Your task to perform on an android device: Clear the cart on walmart.com. Search for "usb-c to usb-b" on walmart.com, select the first entry, and add it to the cart. Image 0: 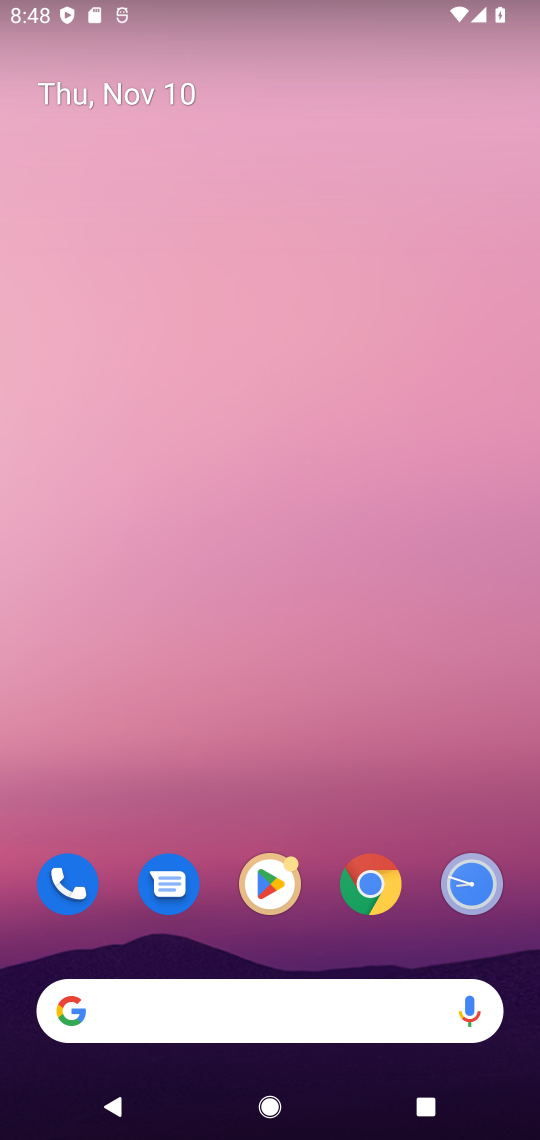
Step 0: click (201, 1002)
Your task to perform on an android device: Clear the cart on walmart.com. Search for "usb-c to usb-b" on walmart.com, select the first entry, and add it to the cart. Image 1: 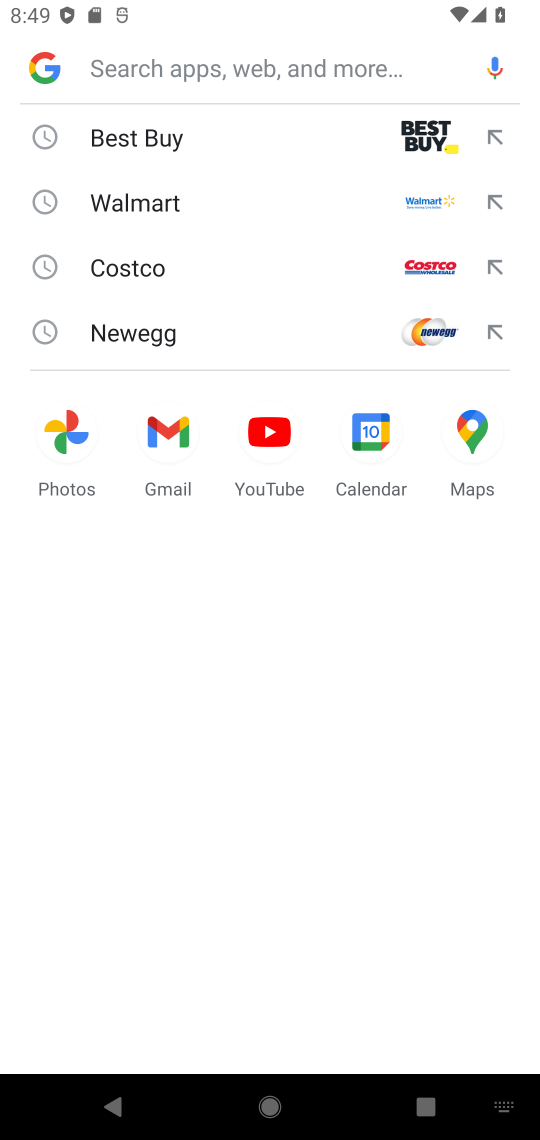
Step 1: click (136, 212)
Your task to perform on an android device: Clear the cart on walmart.com. Search for "usb-c to usb-b" on walmart.com, select the first entry, and add it to the cart. Image 2: 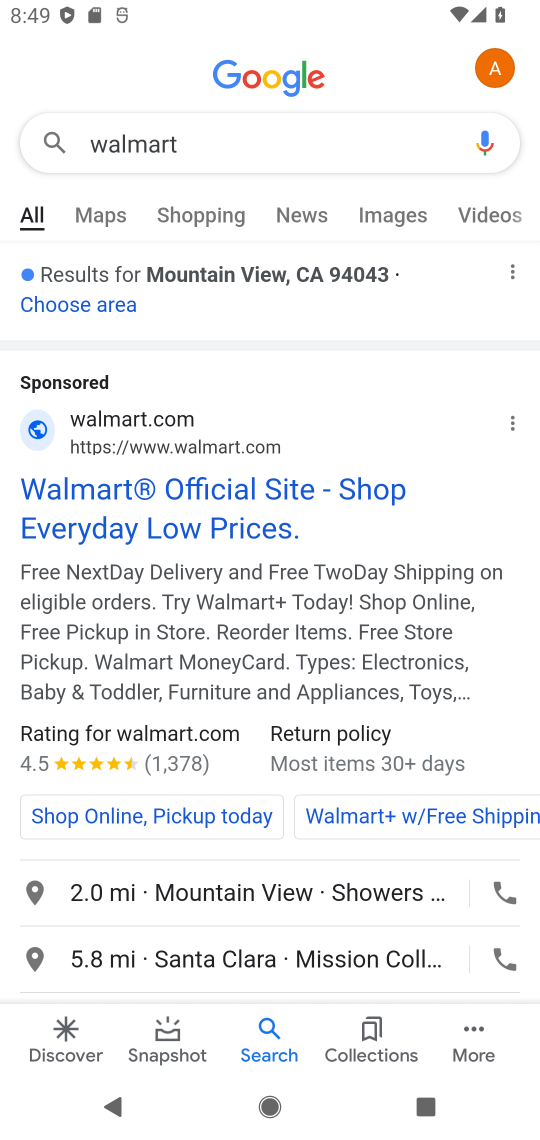
Step 2: click (96, 427)
Your task to perform on an android device: Clear the cart on walmart.com. Search for "usb-c to usb-b" on walmart.com, select the first entry, and add it to the cart. Image 3: 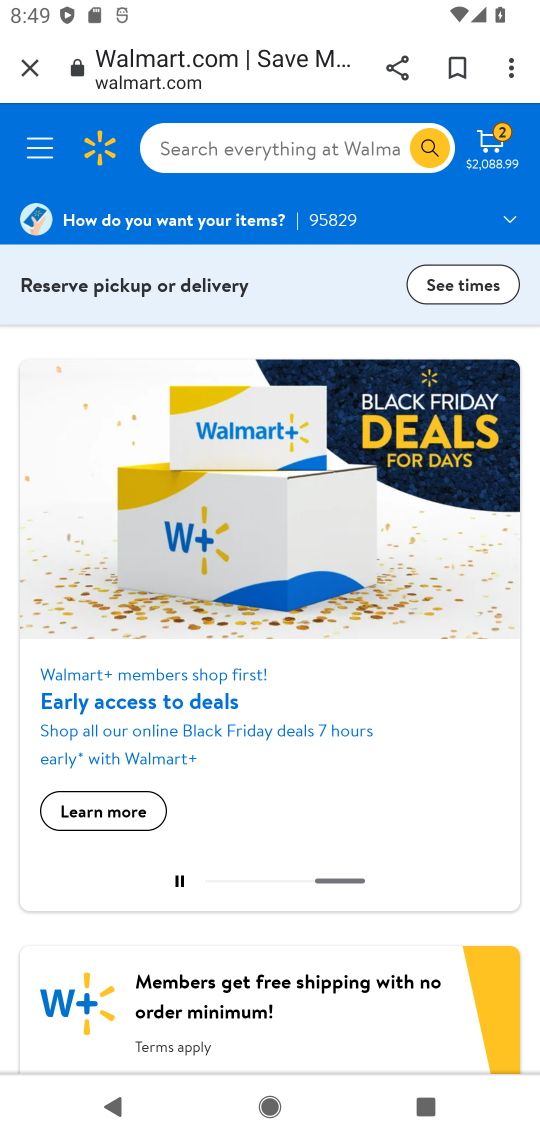
Step 3: click (237, 136)
Your task to perform on an android device: Clear the cart on walmart.com. Search for "usb-c to usb-b" on walmart.com, select the first entry, and add it to the cart. Image 4: 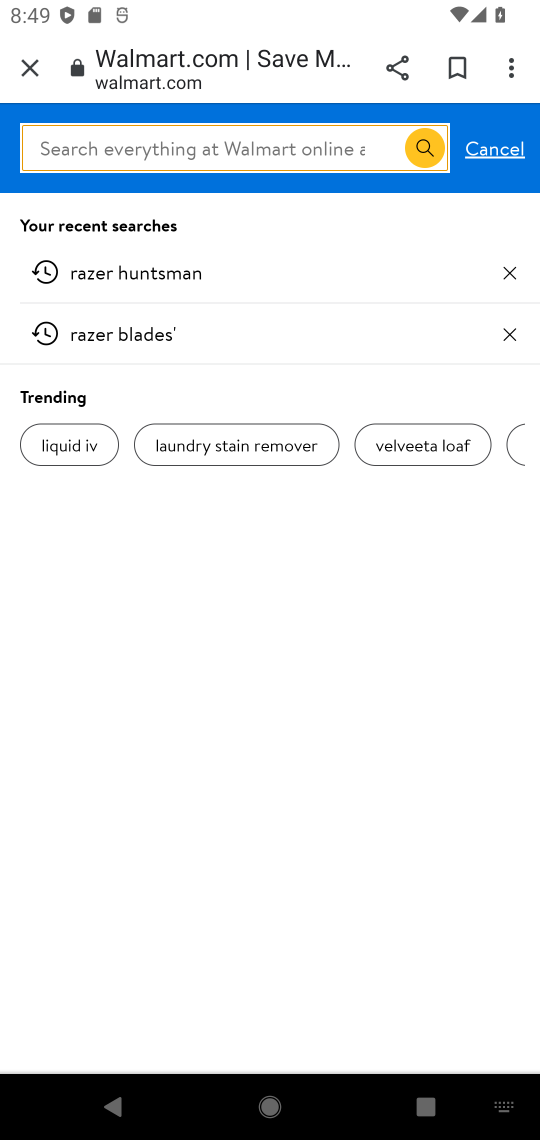
Step 4: type "usb-c to usb-b"
Your task to perform on an android device: Clear the cart on walmart.com. Search for "usb-c to usb-b" on walmart.com, select the first entry, and add it to the cart. Image 5: 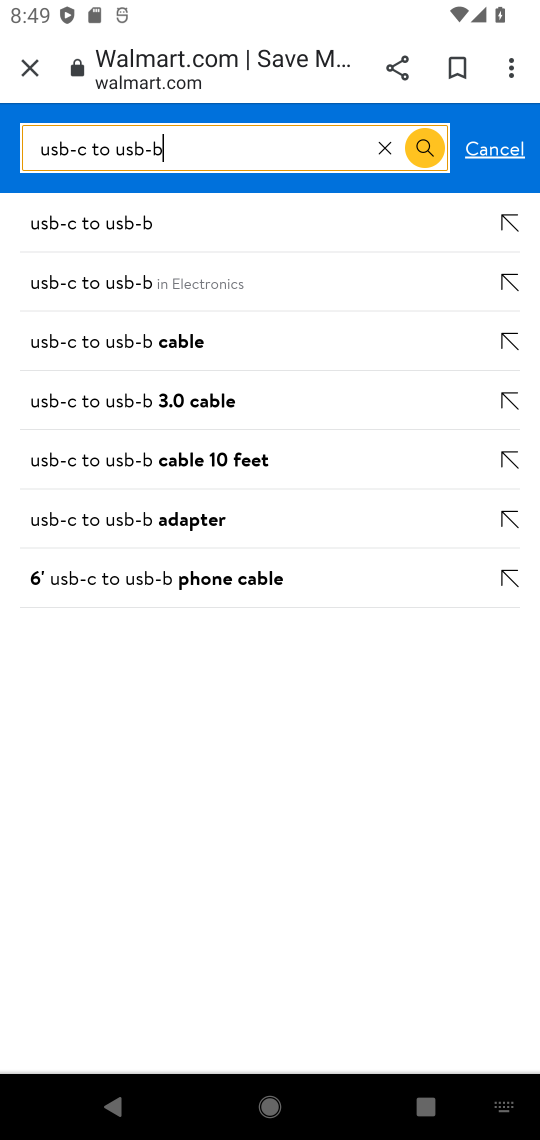
Step 5: click (123, 219)
Your task to perform on an android device: Clear the cart on walmart.com. Search for "usb-c to usb-b" on walmart.com, select the first entry, and add it to the cart. Image 6: 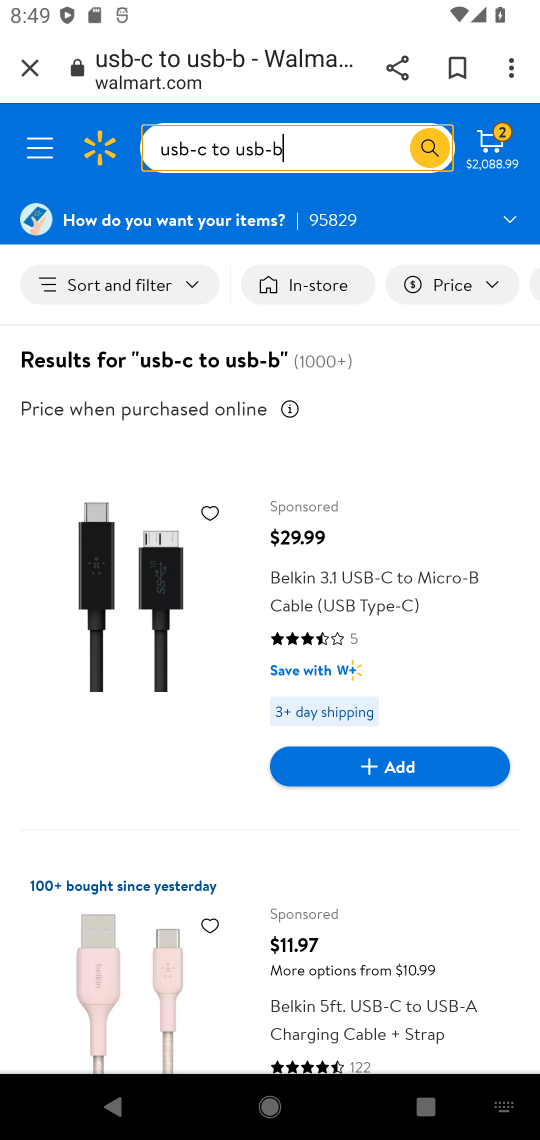
Step 6: click (387, 780)
Your task to perform on an android device: Clear the cart on walmart.com. Search for "usb-c to usb-b" on walmart.com, select the first entry, and add it to the cart. Image 7: 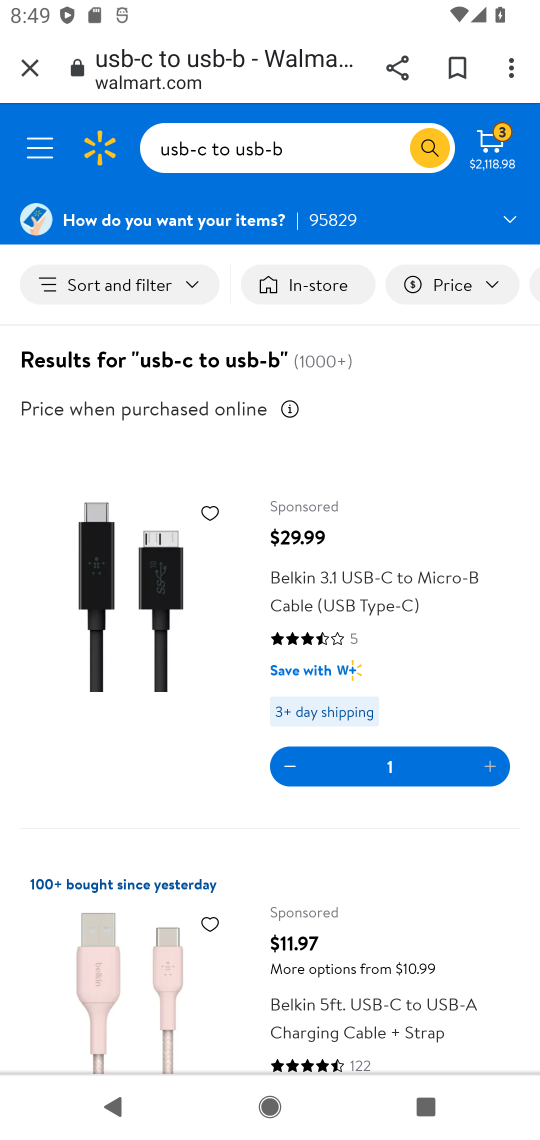
Step 7: task complete